Your task to perform on an android device: open chrome and create a bookmark for the current page Image 0: 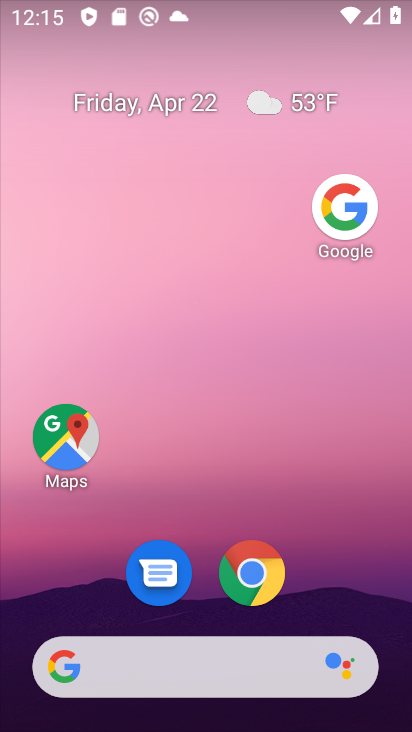
Step 0: drag from (196, 657) to (316, 55)
Your task to perform on an android device: open chrome and create a bookmark for the current page Image 1: 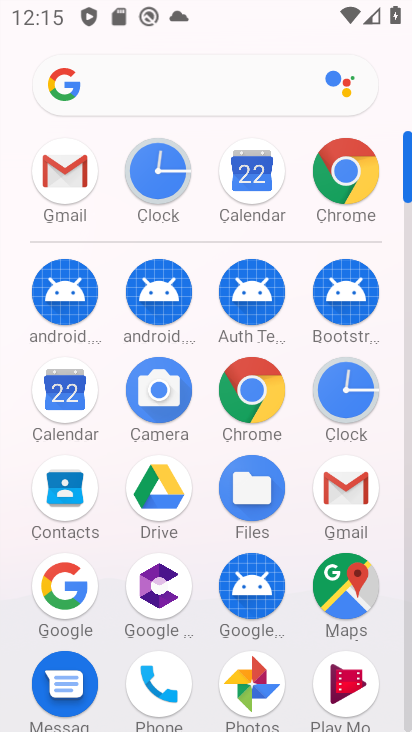
Step 1: click (345, 186)
Your task to perform on an android device: open chrome and create a bookmark for the current page Image 2: 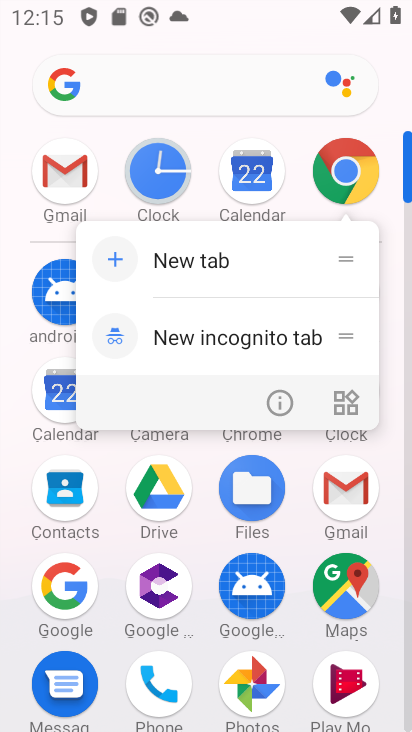
Step 2: click (353, 173)
Your task to perform on an android device: open chrome and create a bookmark for the current page Image 3: 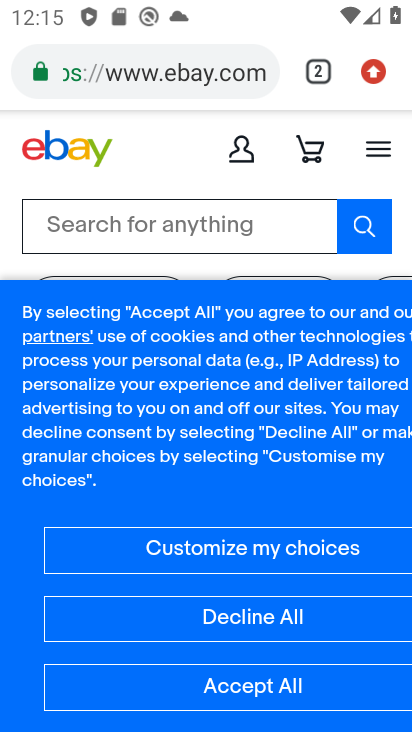
Step 3: click (367, 86)
Your task to perform on an android device: open chrome and create a bookmark for the current page Image 4: 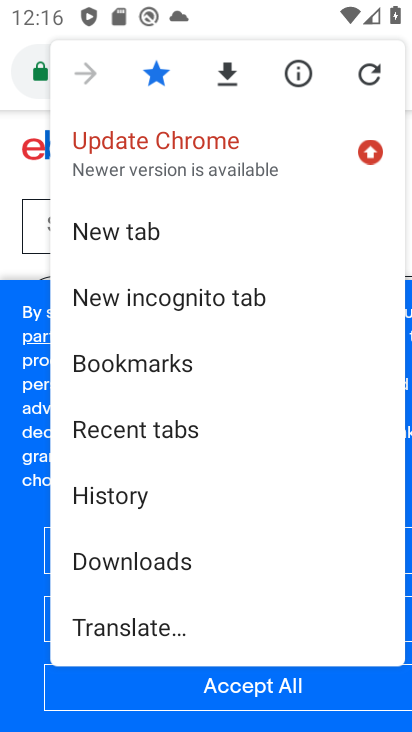
Step 4: task complete